Your task to perform on an android device: open sync settings in chrome Image 0: 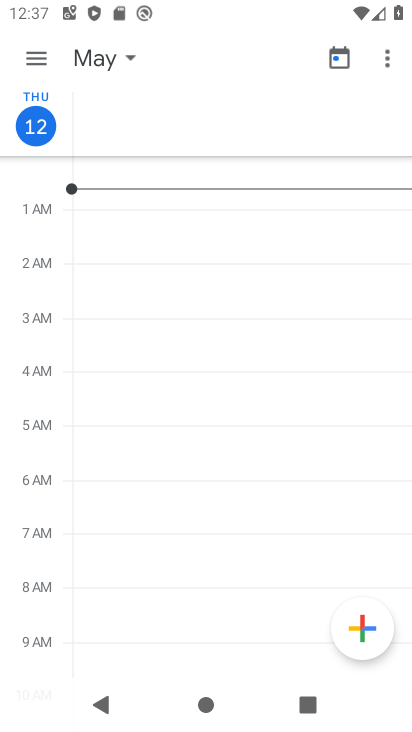
Step 0: press home button
Your task to perform on an android device: open sync settings in chrome Image 1: 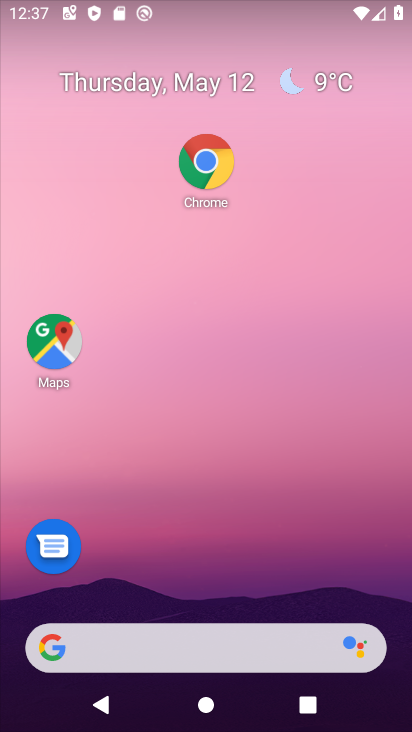
Step 1: click (210, 156)
Your task to perform on an android device: open sync settings in chrome Image 2: 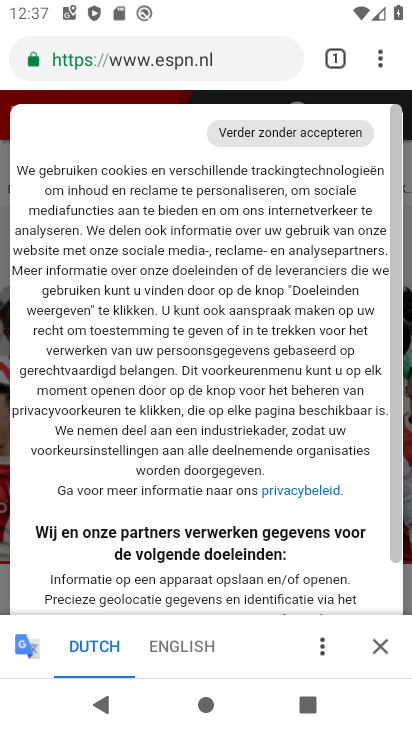
Step 2: drag from (378, 63) to (206, 570)
Your task to perform on an android device: open sync settings in chrome Image 3: 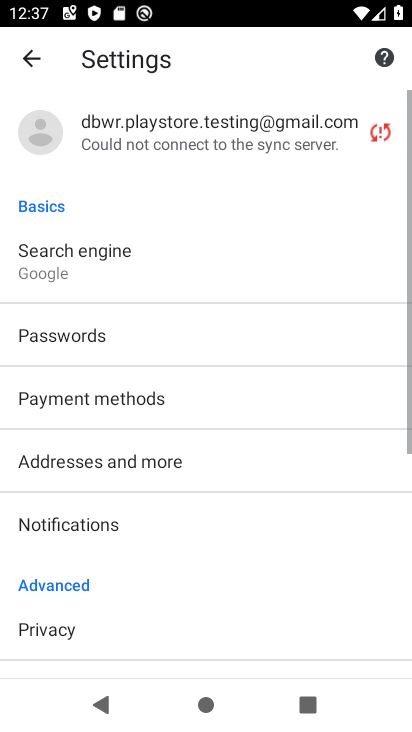
Step 3: drag from (198, 526) to (196, 140)
Your task to perform on an android device: open sync settings in chrome Image 4: 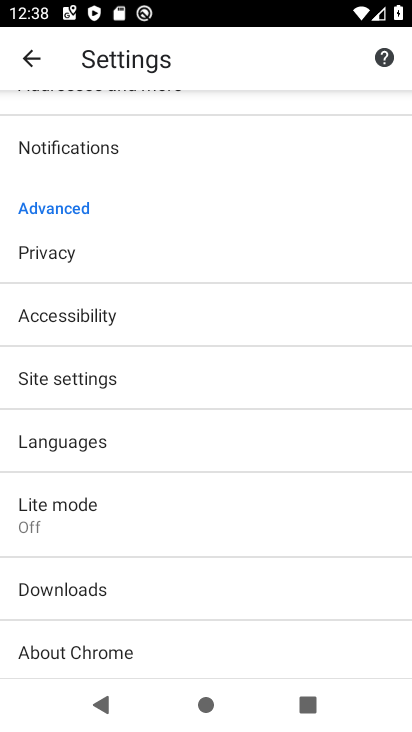
Step 4: click (101, 387)
Your task to perform on an android device: open sync settings in chrome Image 5: 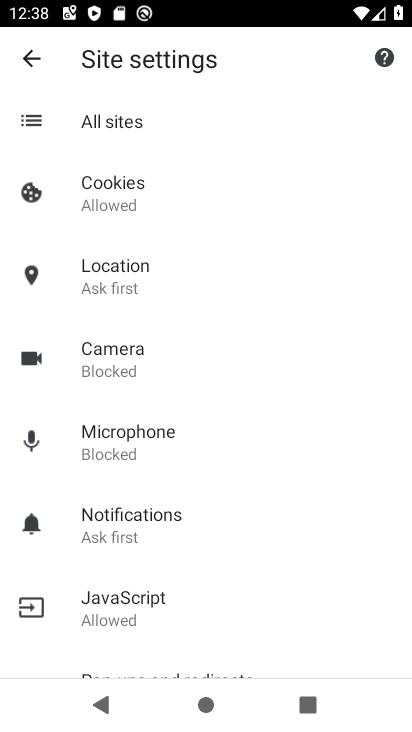
Step 5: drag from (181, 618) to (179, 232)
Your task to perform on an android device: open sync settings in chrome Image 6: 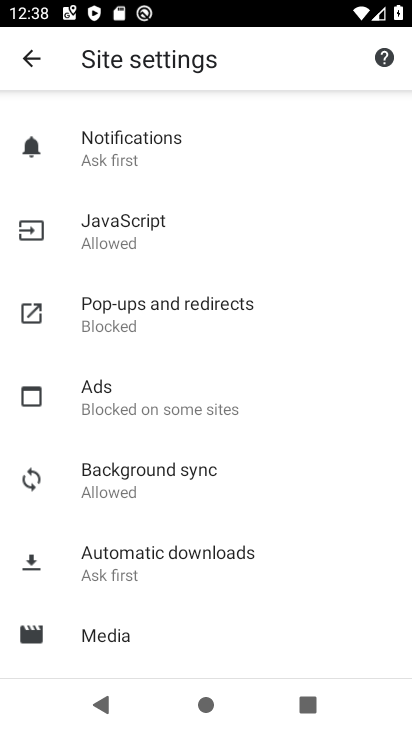
Step 6: click (156, 485)
Your task to perform on an android device: open sync settings in chrome Image 7: 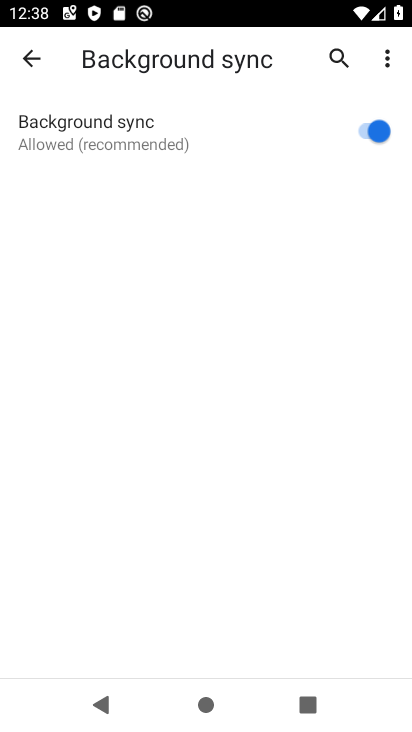
Step 7: task complete